Your task to perform on an android device: change notification settings in the gmail app Image 0: 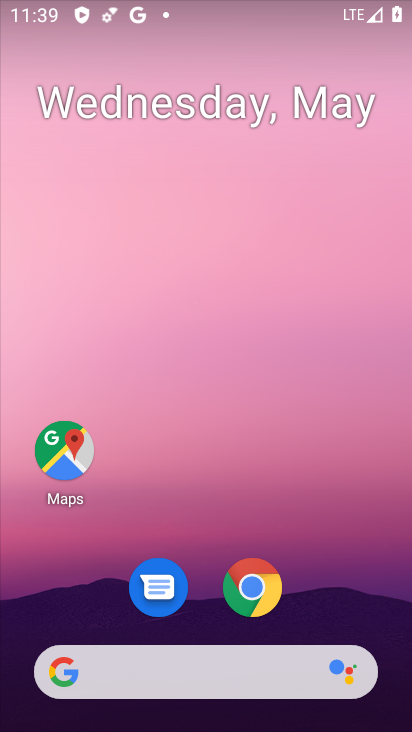
Step 0: drag from (341, 606) to (292, 45)
Your task to perform on an android device: change notification settings in the gmail app Image 1: 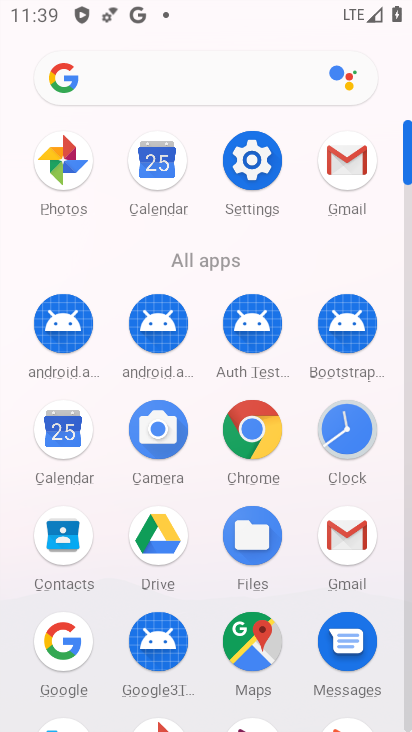
Step 1: click (346, 161)
Your task to perform on an android device: change notification settings in the gmail app Image 2: 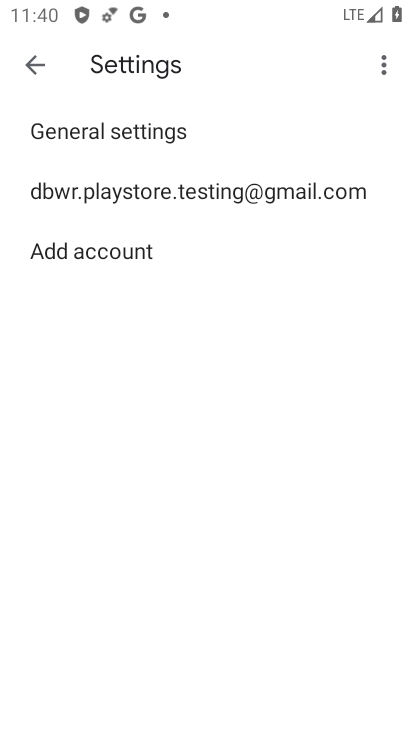
Step 2: click (98, 192)
Your task to perform on an android device: change notification settings in the gmail app Image 3: 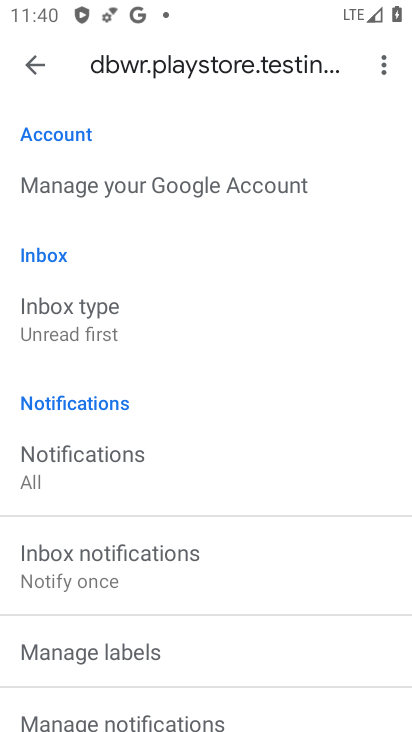
Step 3: click (117, 712)
Your task to perform on an android device: change notification settings in the gmail app Image 4: 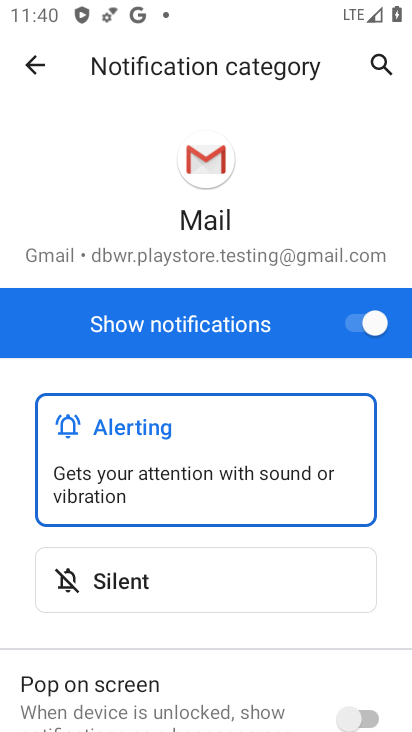
Step 4: drag from (200, 598) to (161, 320)
Your task to perform on an android device: change notification settings in the gmail app Image 5: 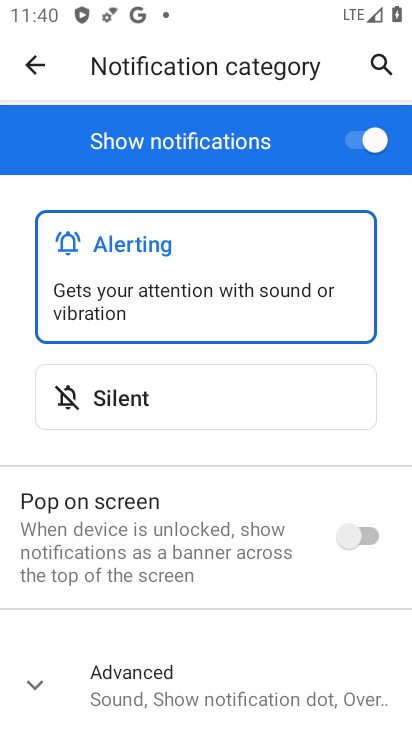
Step 5: click (386, 545)
Your task to perform on an android device: change notification settings in the gmail app Image 6: 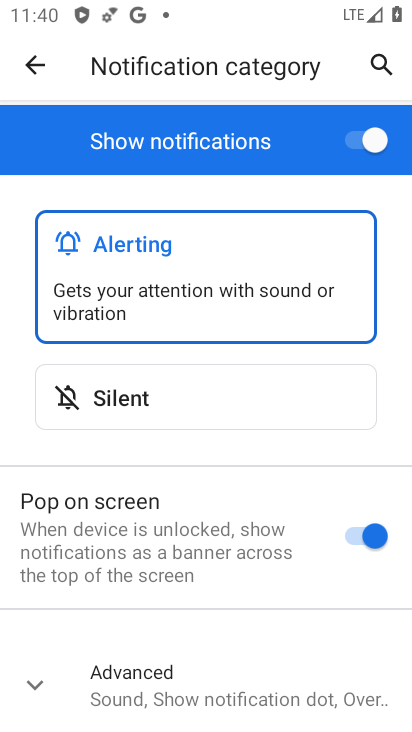
Step 6: task complete